Your task to perform on an android device: Search for pizza restaurants on Maps Image 0: 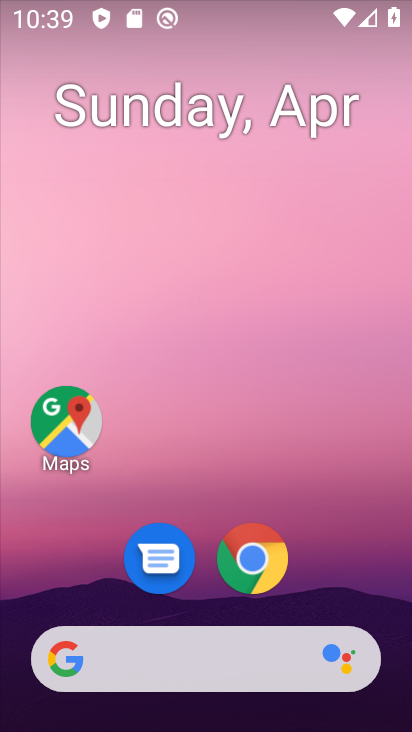
Step 0: drag from (219, 724) to (82, 52)
Your task to perform on an android device: Search for pizza restaurants on Maps Image 1: 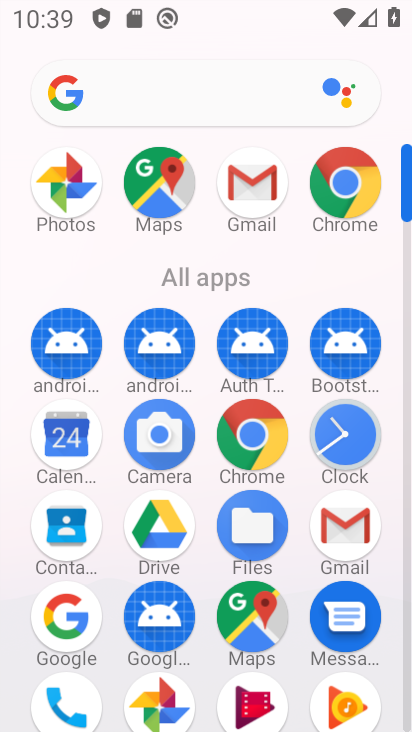
Step 1: click (145, 184)
Your task to perform on an android device: Search for pizza restaurants on Maps Image 2: 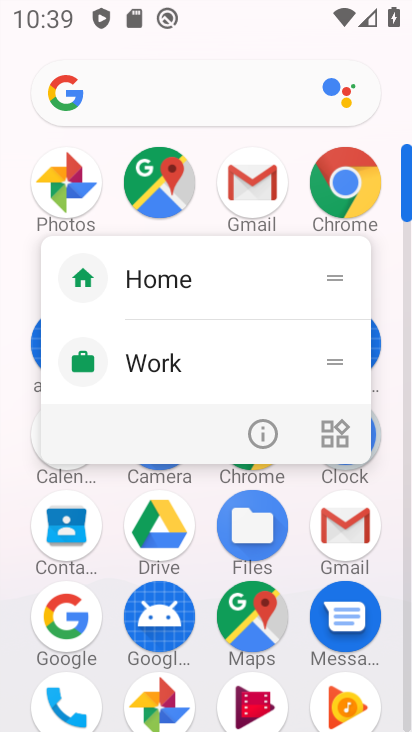
Step 2: click (175, 184)
Your task to perform on an android device: Search for pizza restaurants on Maps Image 3: 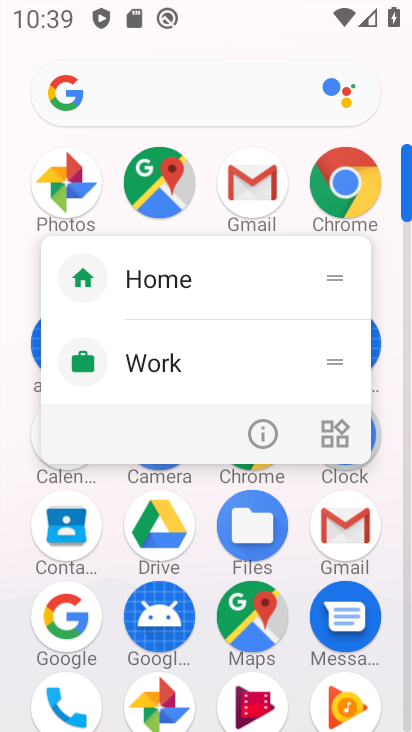
Step 3: click (174, 184)
Your task to perform on an android device: Search for pizza restaurants on Maps Image 4: 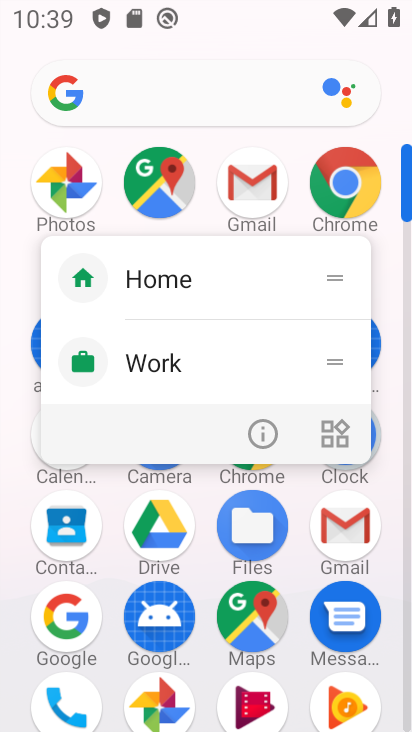
Step 4: click (174, 184)
Your task to perform on an android device: Search for pizza restaurants on Maps Image 5: 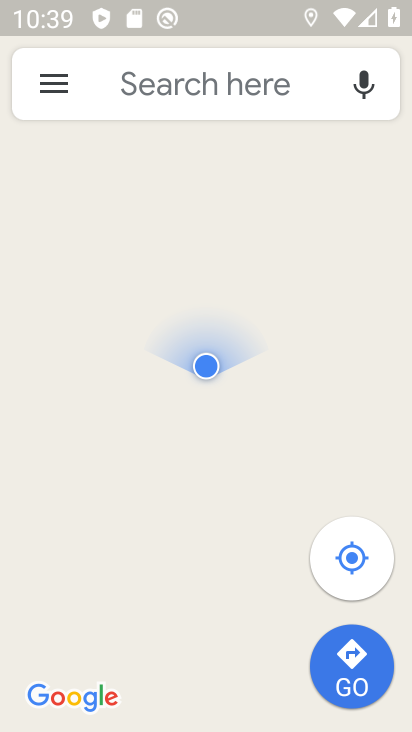
Step 5: click (126, 82)
Your task to perform on an android device: Search for pizza restaurants on Maps Image 6: 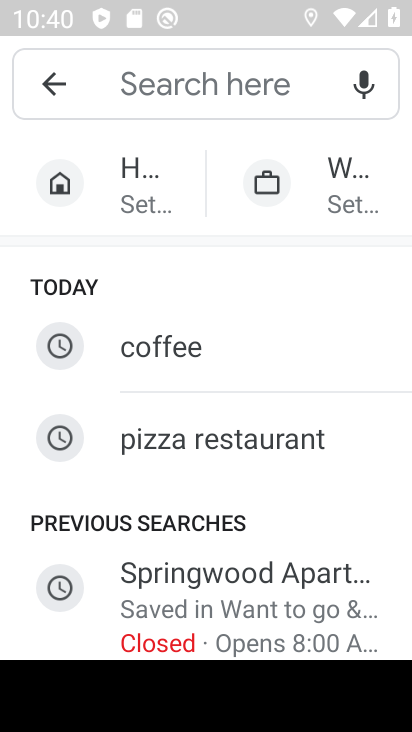
Step 6: type "pizza restaurants"
Your task to perform on an android device: Search for pizza restaurants on Maps Image 7: 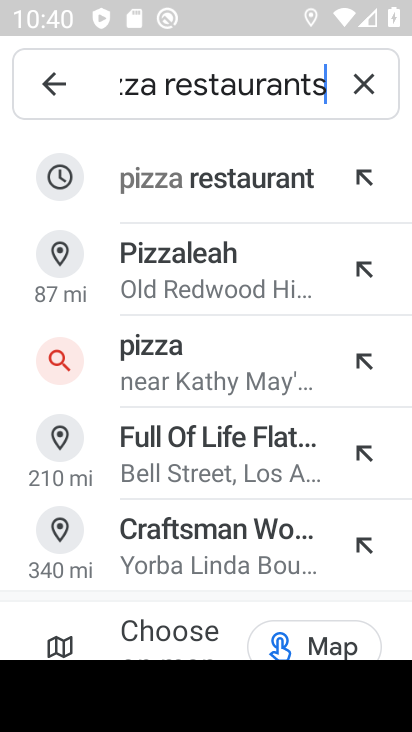
Step 7: click (245, 181)
Your task to perform on an android device: Search for pizza restaurants on Maps Image 8: 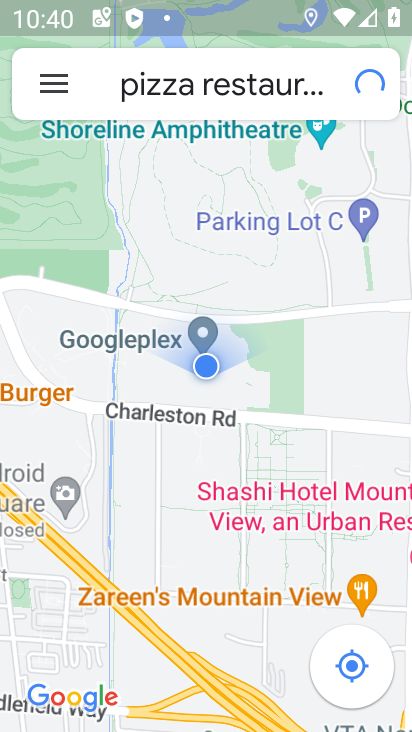
Step 8: task complete